Your task to perform on an android device: turn off location Image 0: 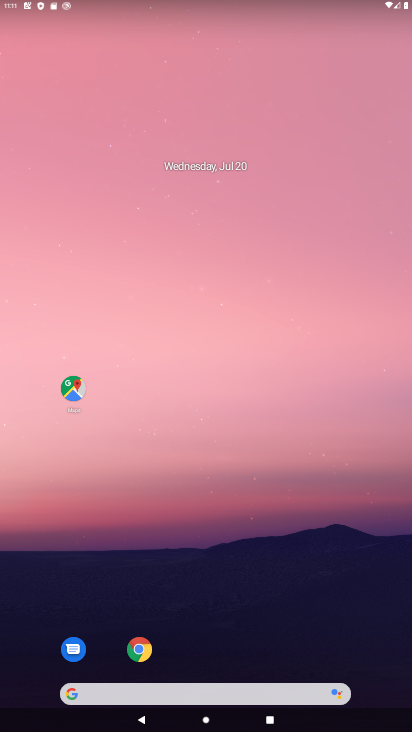
Step 0: click (254, 655)
Your task to perform on an android device: turn off location Image 1: 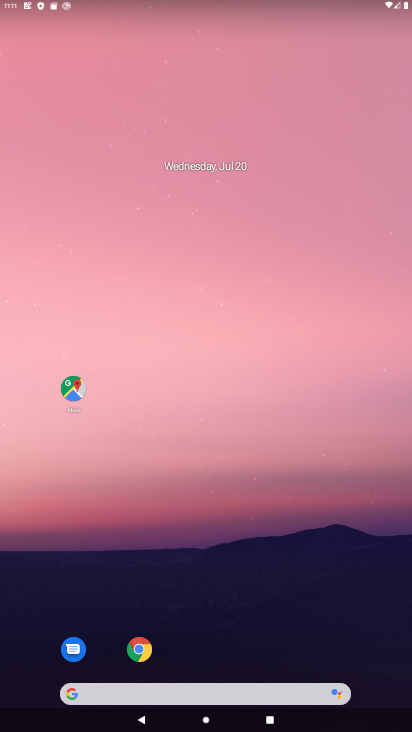
Step 1: drag from (254, 655) to (388, 3)
Your task to perform on an android device: turn off location Image 2: 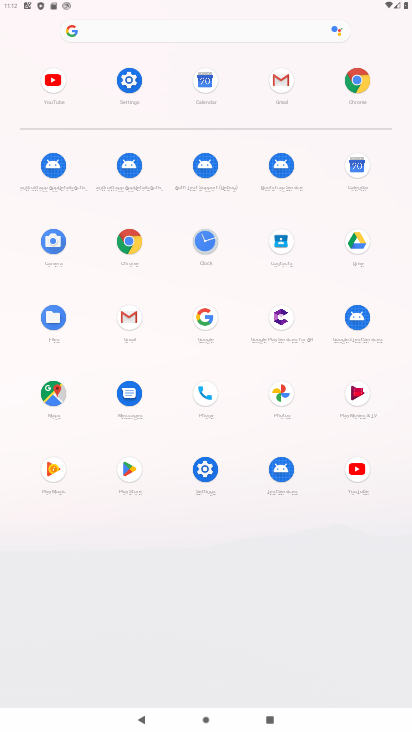
Step 2: click (201, 479)
Your task to perform on an android device: turn off location Image 3: 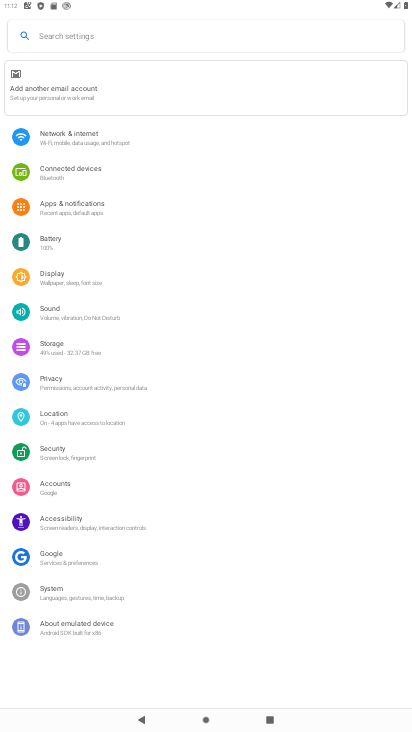
Step 3: click (156, 423)
Your task to perform on an android device: turn off location Image 4: 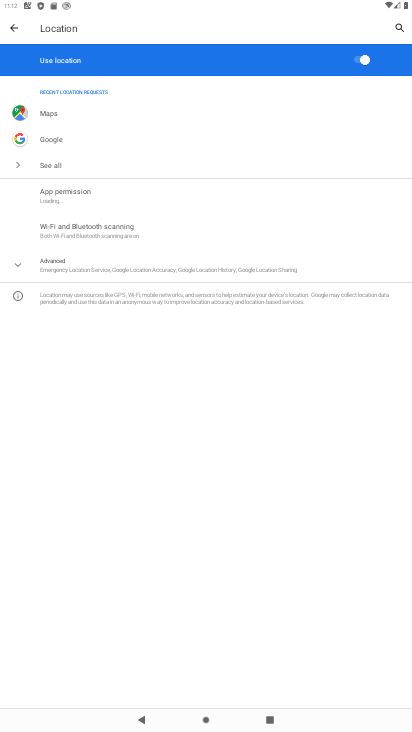
Step 4: click (372, 51)
Your task to perform on an android device: turn off location Image 5: 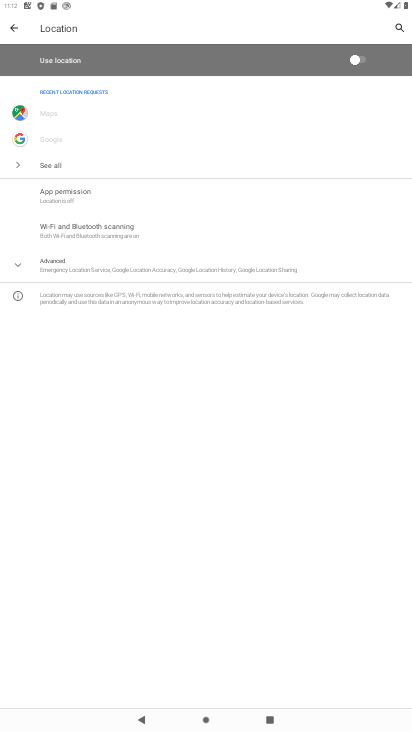
Step 5: task complete